Your task to perform on an android device: Go to accessibility settings Image 0: 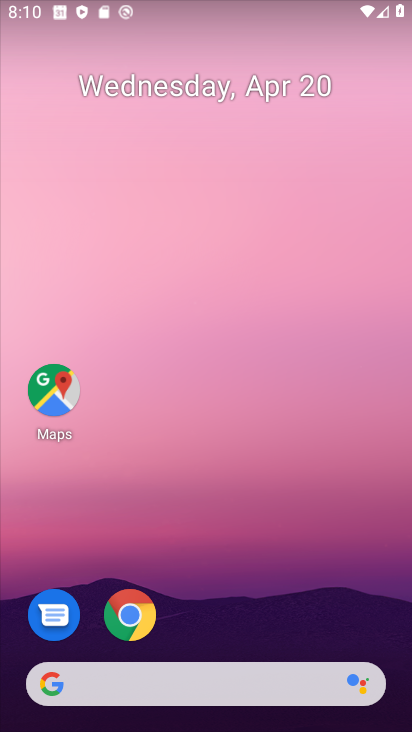
Step 0: drag from (237, 625) to (319, 62)
Your task to perform on an android device: Go to accessibility settings Image 1: 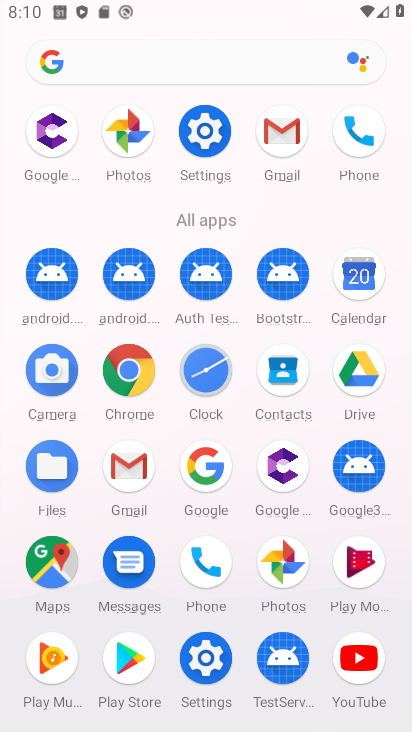
Step 1: click (206, 132)
Your task to perform on an android device: Go to accessibility settings Image 2: 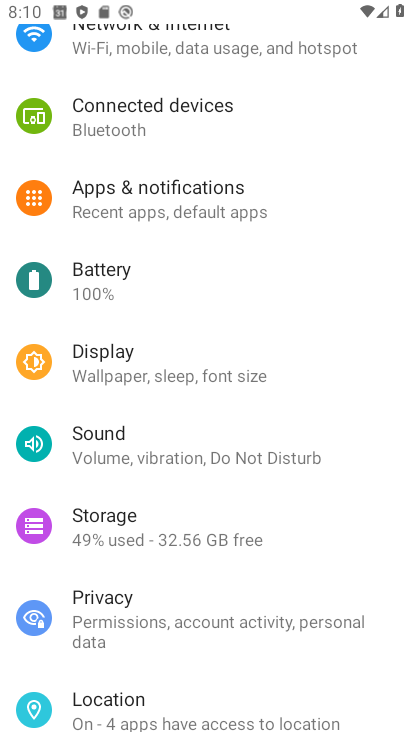
Step 2: drag from (163, 331) to (236, 185)
Your task to perform on an android device: Go to accessibility settings Image 3: 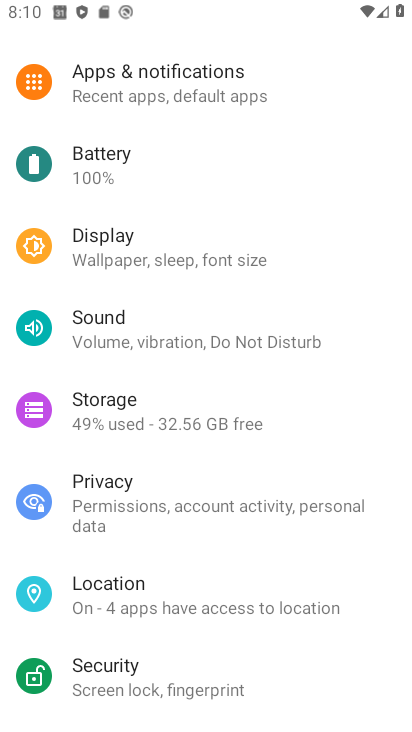
Step 3: drag from (157, 474) to (205, 361)
Your task to perform on an android device: Go to accessibility settings Image 4: 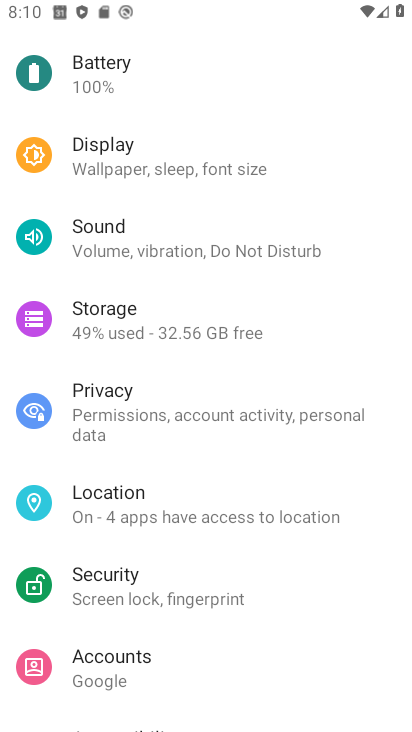
Step 4: drag from (187, 550) to (244, 455)
Your task to perform on an android device: Go to accessibility settings Image 5: 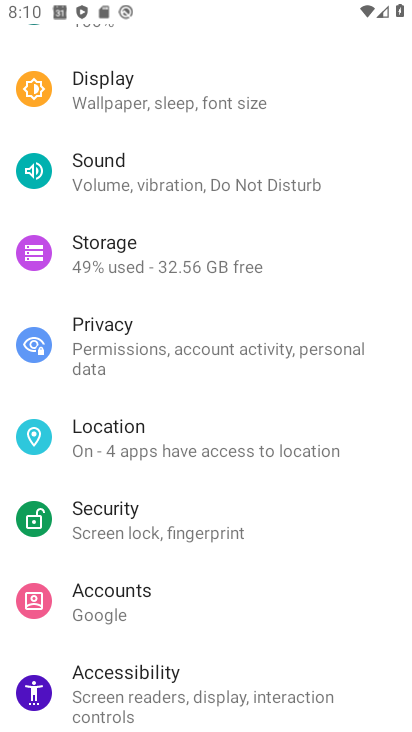
Step 5: drag from (192, 581) to (239, 456)
Your task to perform on an android device: Go to accessibility settings Image 6: 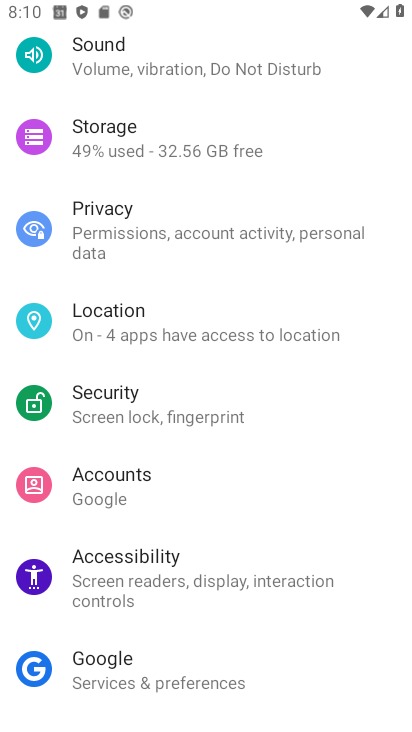
Step 6: click (153, 565)
Your task to perform on an android device: Go to accessibility settings Image 7: 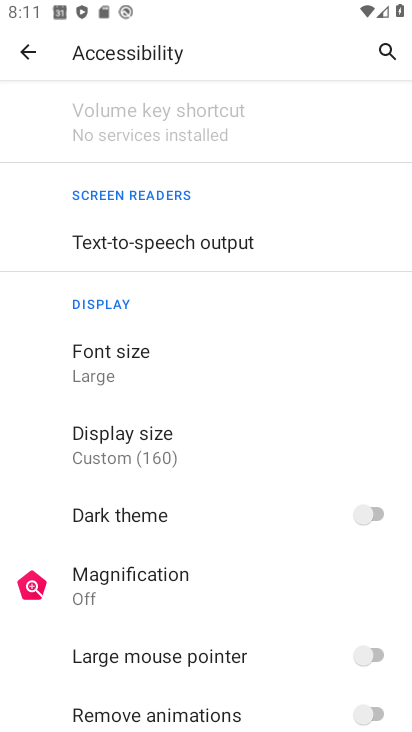
Step 7: task complete